Your task to perform on an android device: turn smart compose on in the gmail app Image 0: 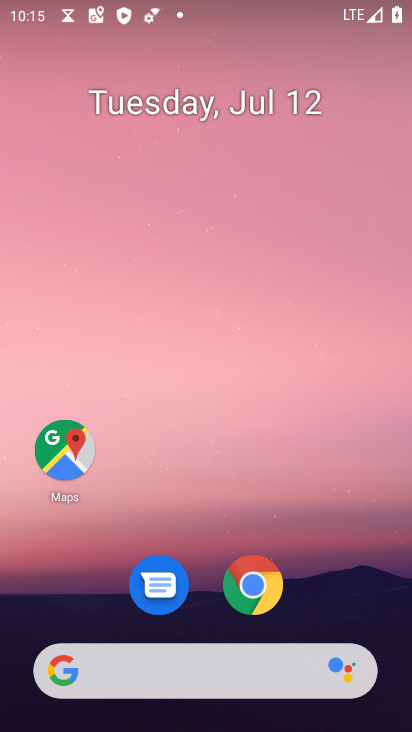
Step 0: drag from (209, 662) to (312, 137)
Your task to perform on an android device: turn smart compose on in the gmail app Image 1: 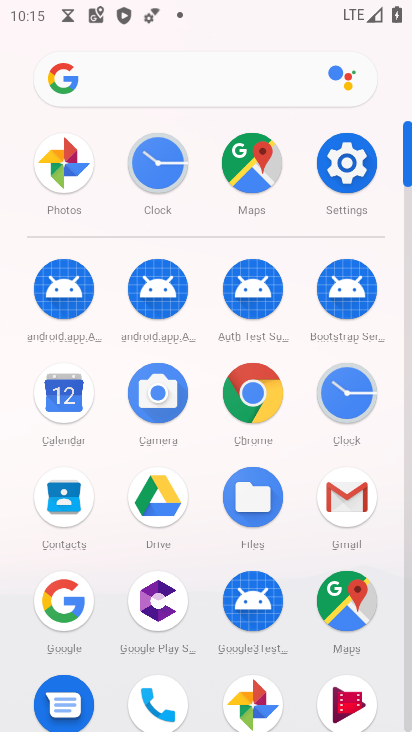
Step 1: click (343, 497)
Your task to perform on an android device: turn smart compose on in the gmail app Image 2: 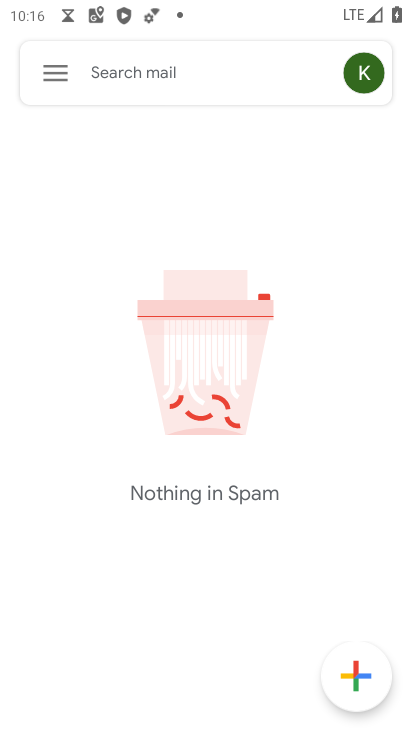
Step 2: click (54, 73)
Your task to perform on an android device: turn smart compose on in the gmail app Image 3: 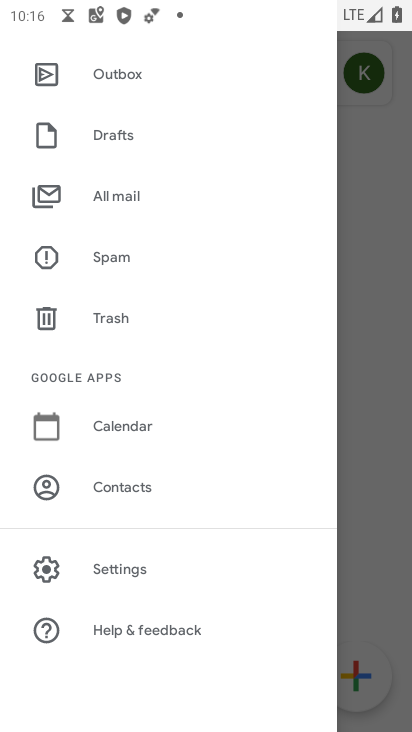
Step 3: click (138, 573)
Your task to perform on an android device: turn smart compose on in the gmail app Image 4: 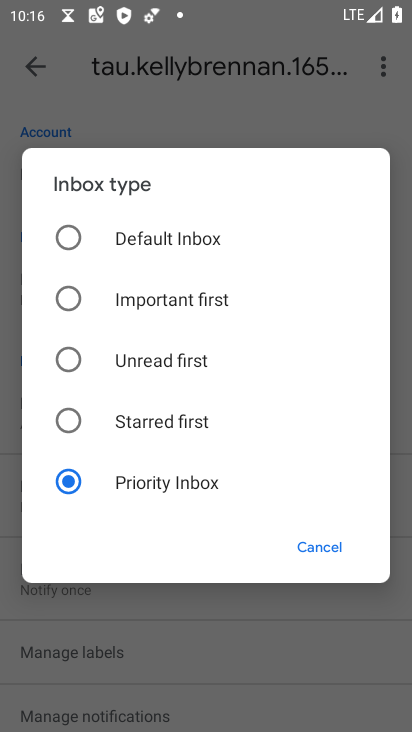
Step 4: click (331, 550)
Your task to perform on an android device: turn smart compose on in the gmail app Image 5: 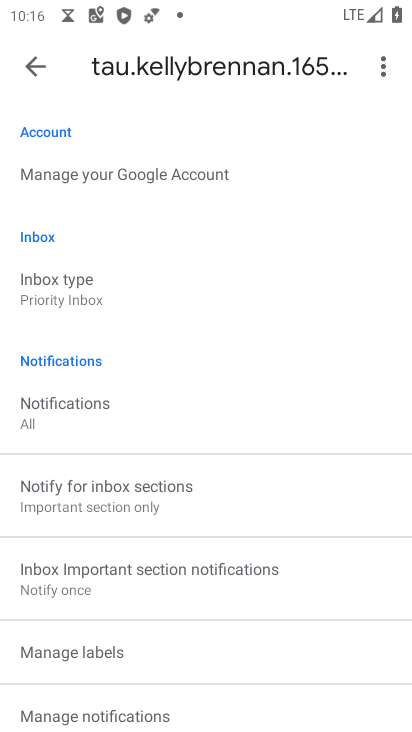
Step 5: task complete